Your task to perform on an android device: turn on wifi Image 0: 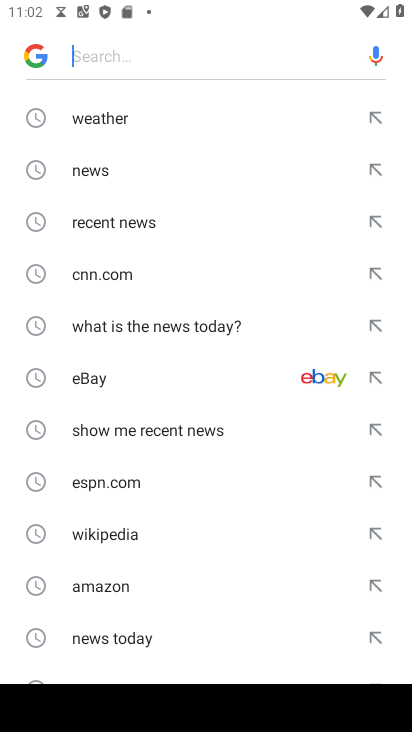
Step 0: press home button
Your task to perform on an android device: turn on wifi Image 1: 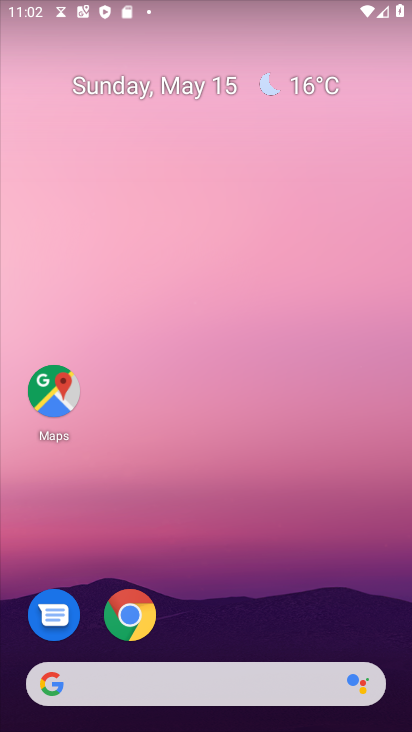
Step 1: drag from (317, 657) to (382, 163)
Your task to perform on an android device: turn on wifi Image 2: 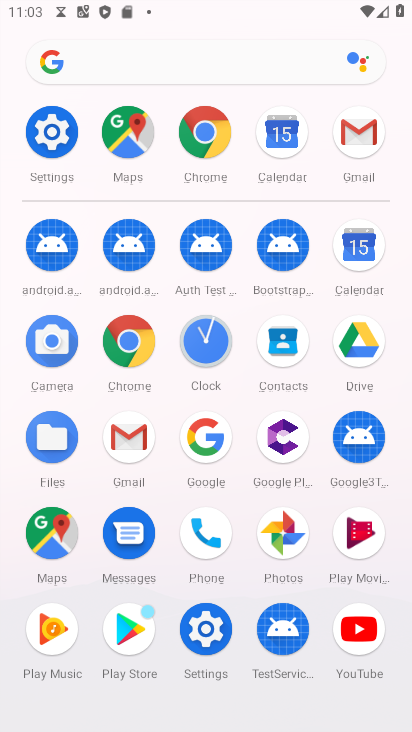
Step 2: click (36, 150)
Your task to perform on an android device: turn on wifi Image 3: 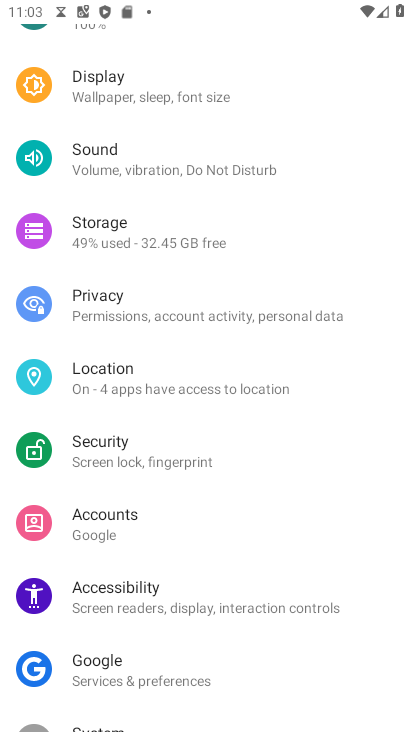
Step 3: drag from (227, 173) to (328, 718)
Your task to perform on an android device: turn on wifi Image 4: 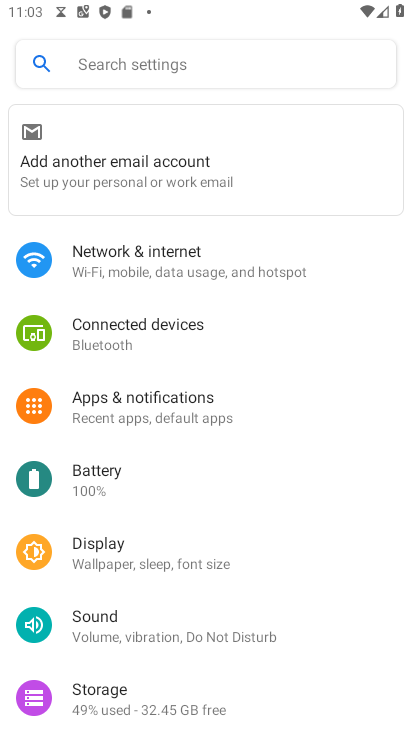
Step 4: click (188, 259)
Your task to perform on an android device: turn on wifi Image 5: 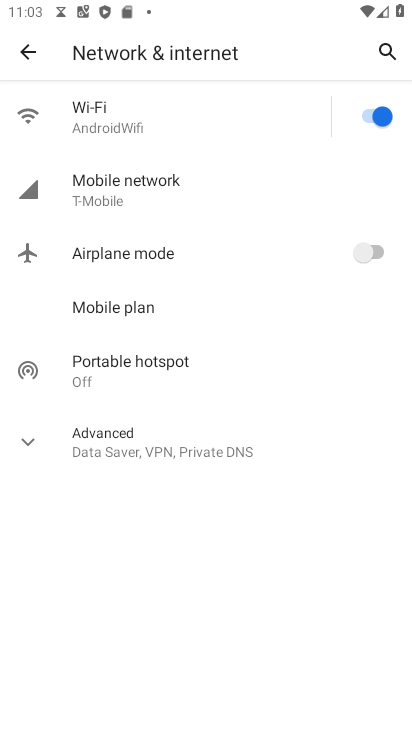
Step 5: task complete